Your task to perform on an android device: How much does a 3 bedroom apartment rent for in Houston? Image 0: 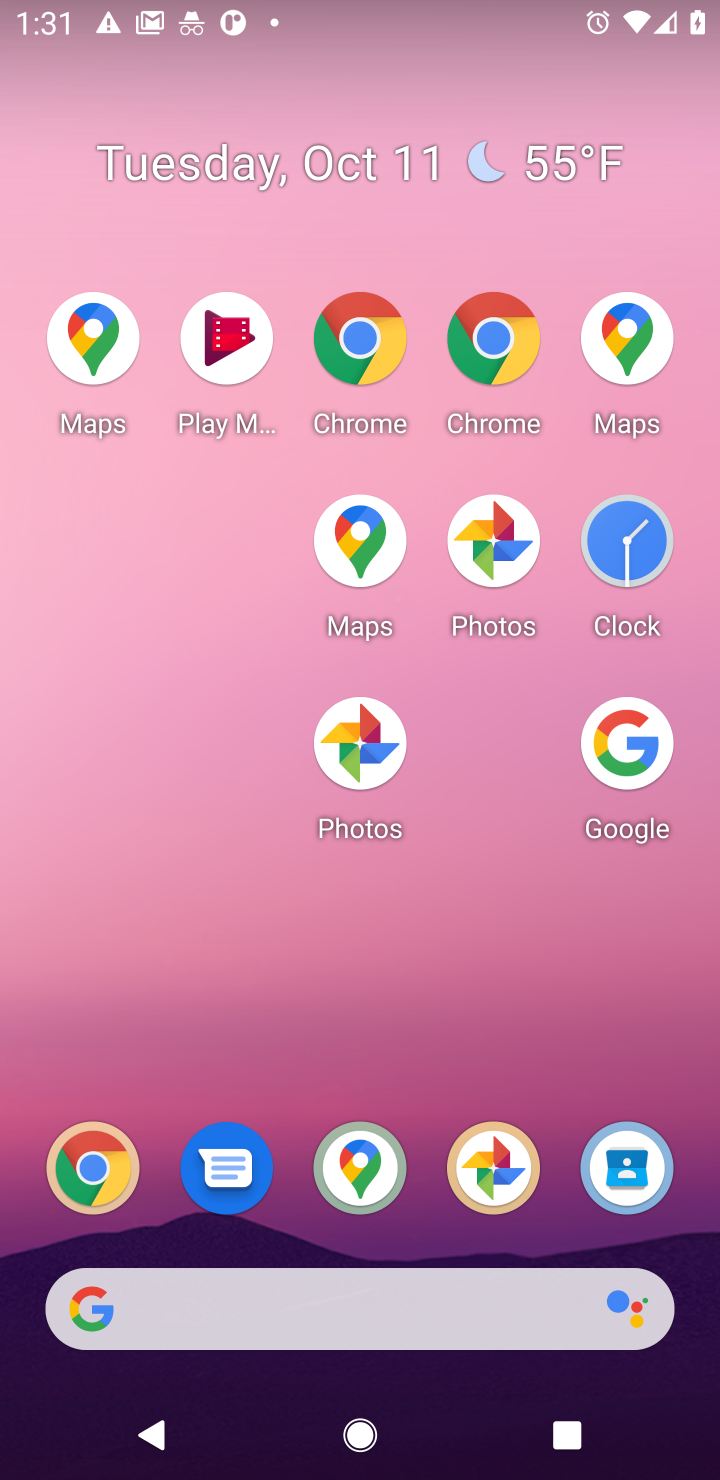
Step 0: click (616, 746)
Your task to perform on an android device: How much does a 3 bedroom apartment rent for in Houston? Image 1: 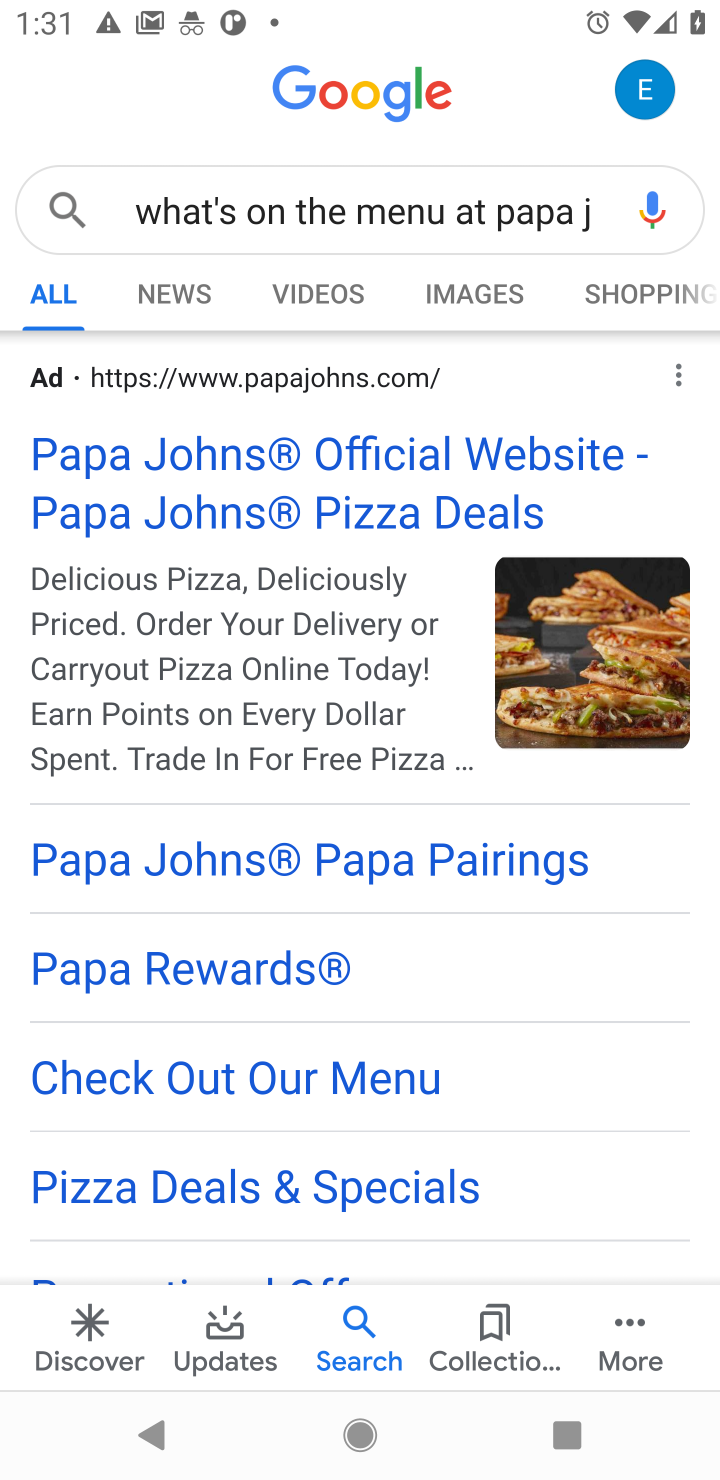
Step 1: click (485, 196)
Your task to perform on an android device: How much does a 3 bedroom apartment rent for in Houston? Image 2: 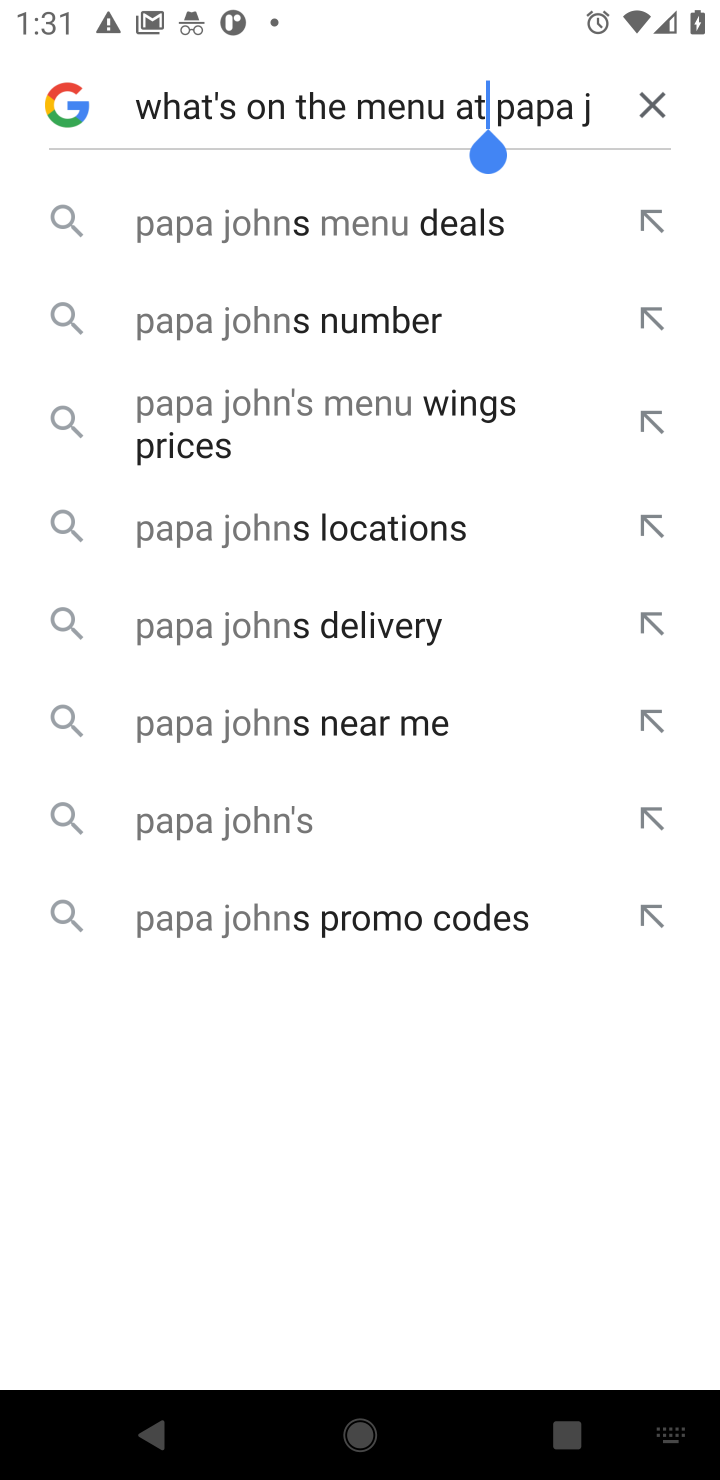
Step 2: click (636, 96)
Your task to perform on an android device: How much does a 3 bedroom apartment rent for in Houston? Image 3: 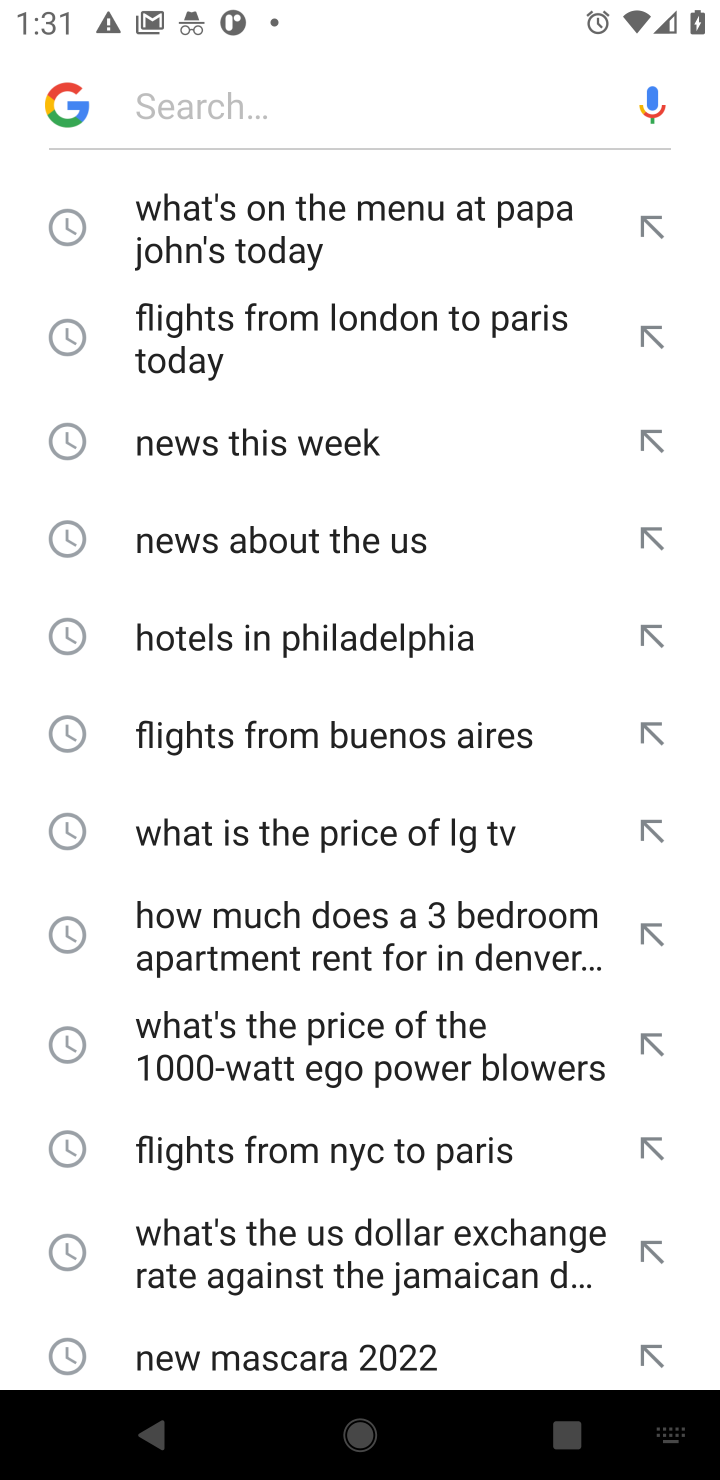
Step 3: type "3 bedroom apartment rent for in Houston"
Your task to perform on an android device: How much does a 3 bedroom apartment rent for in Houston? Image 4: 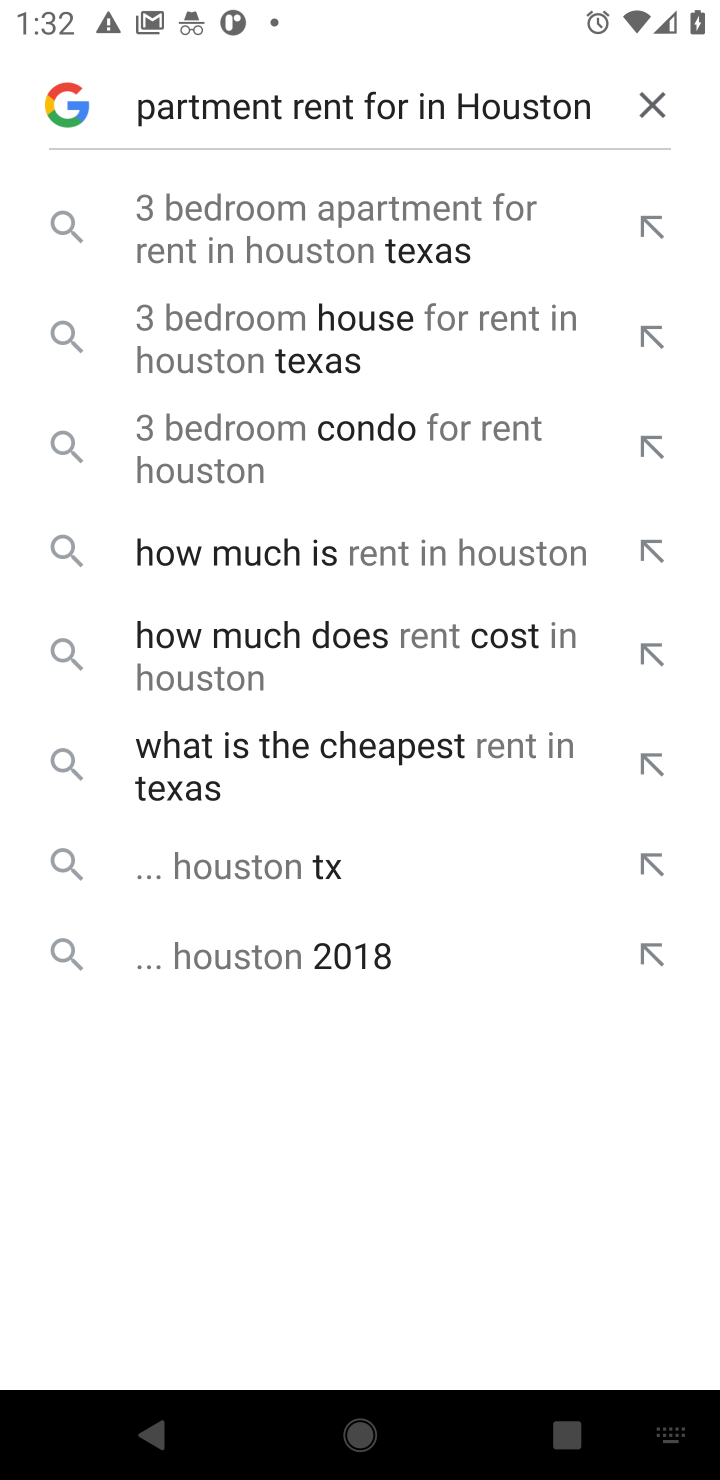
Step 4: click (380, 242)
Your task to perform on an android device: How much does a 3 bedroom apartment rent for in Houston? Image 5: 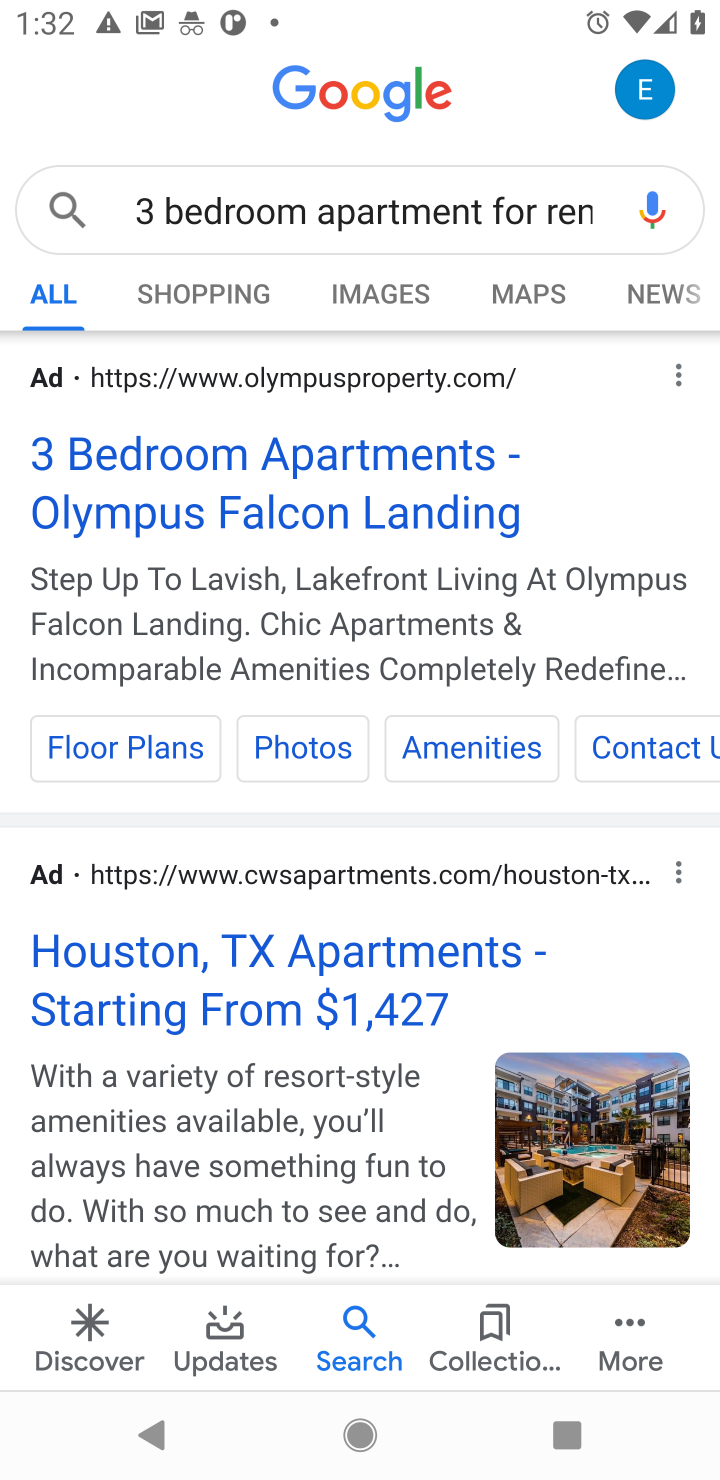
Step 5: task complete